Your task to perform on an android device: Open calendar and show me the second week of next month Image 0: 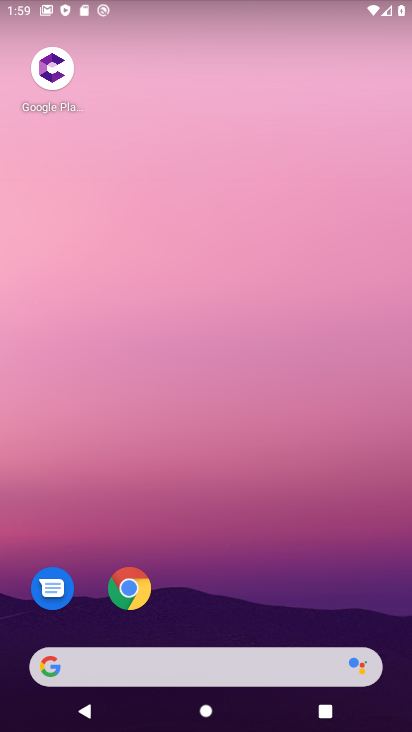
Step 0: drag from (253, 602) to (205, 121)
Your task to perform on an android device: Open calendar and show me the second week of next month Image 1: 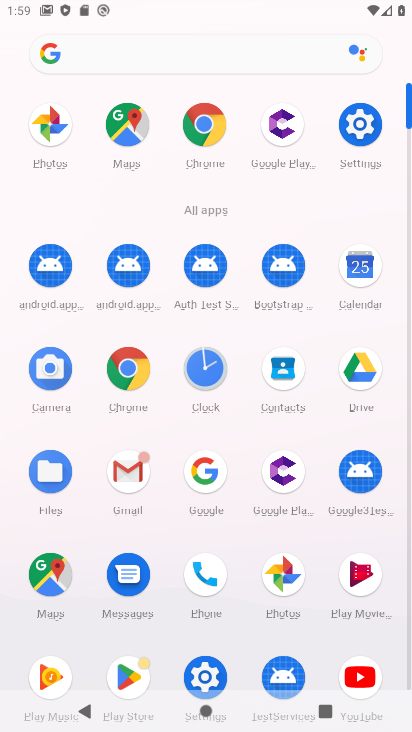
Step 1: click (334, 257)
Your task to perform on an android device: Open calendar and show me the second week of next month Image 2: 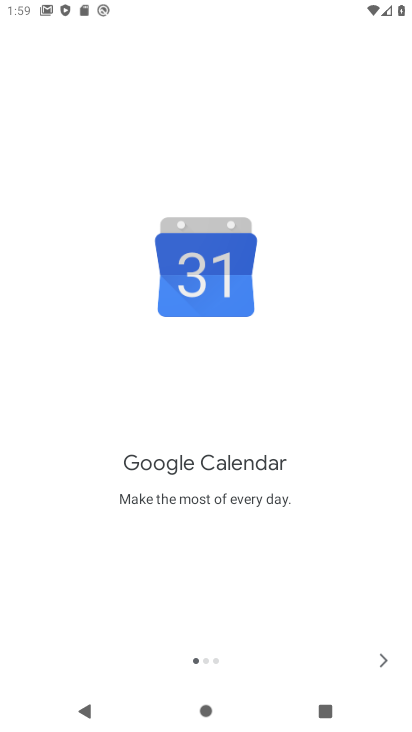
Step 2: click (382, 649)
Your task to perform on an android device: Open calendar and show me the second week of next month Image 3: 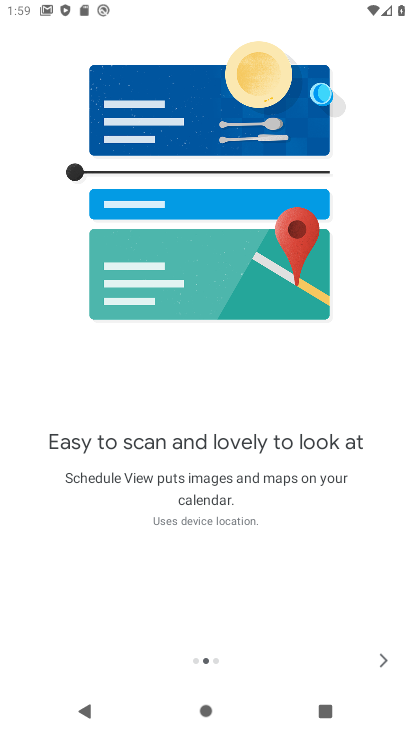
Step 3: click (383, 670)
Your task to perform on an android device: Open calendar and show me the second week of next month Image 4: 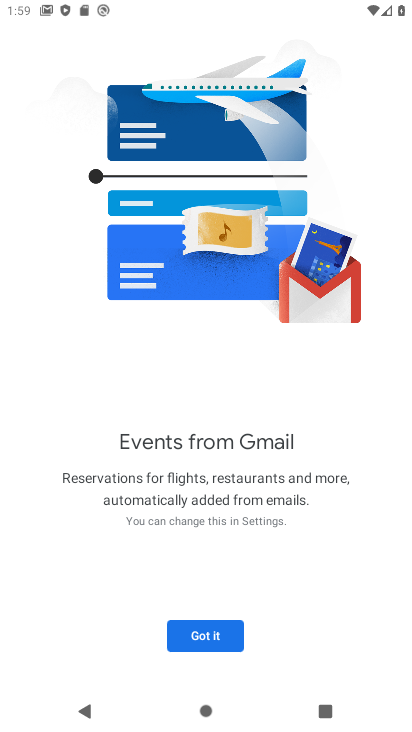
Step 4: click (190, 634)
Your task to perform on an android device: Open calendar and show me the second week of next month Image 5: 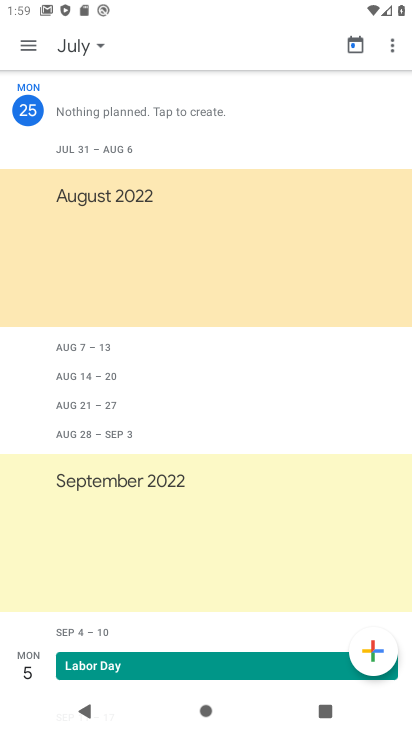
Step 5: click (89, 47)
Your task to perform on an android device: Open calendar and show me the second week of next month Image 6: 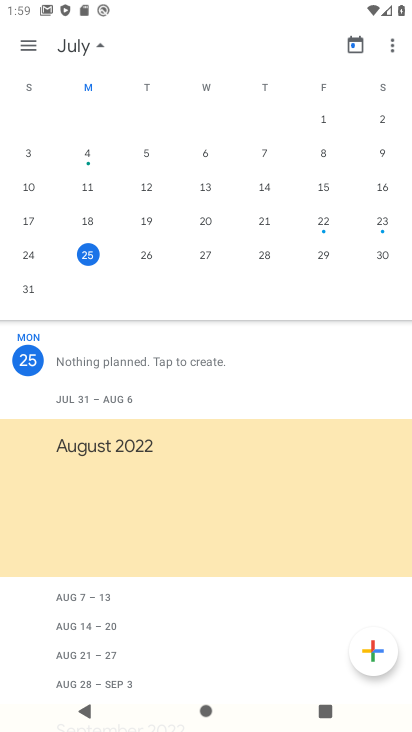
Step 6: drag from (358, 202) to (3, 161)
Your task to perform on an android device: Open calendar and show me the second week of next month Image 7: 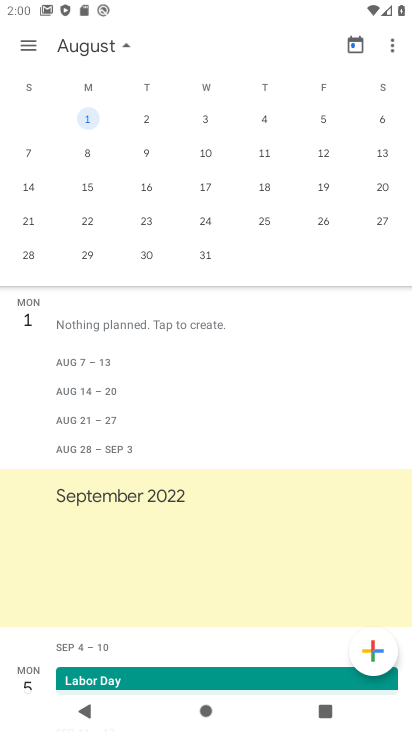
Step 7: click (20, 151)
Your task to perform on an android device: Open calendar and show me the second week of next month Image 8: 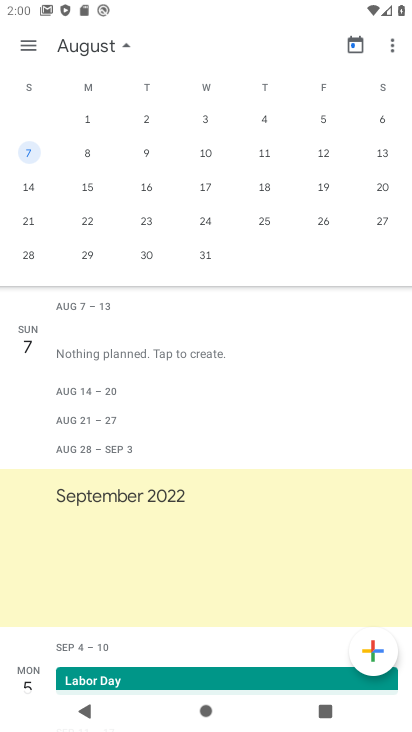
Step 8: task complete